Your task to perform on an android device: Go to network settings Image 0: 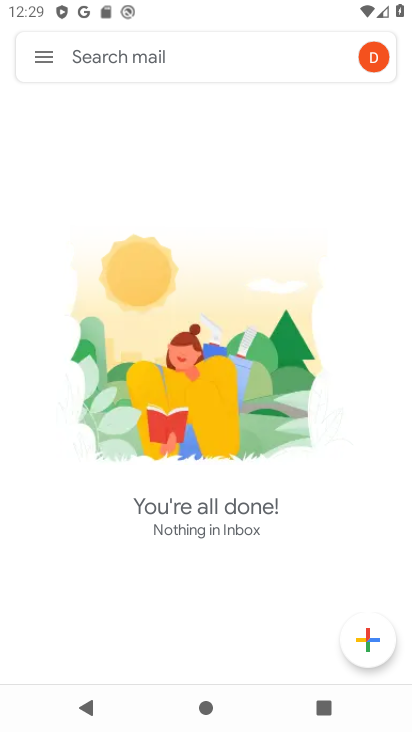
Step 0: press home button
Your task to perform on an android device: Go to network settings Image 1: 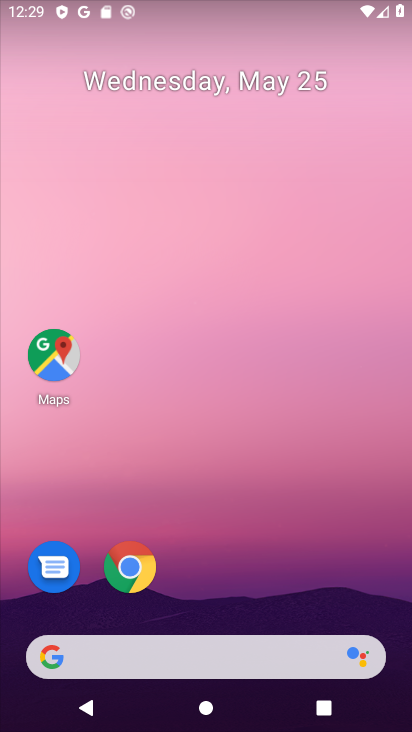
Step 1: drag from (196, 583) to (219, 93)
Your task to perform on an android device: Go to network settings Image 2: 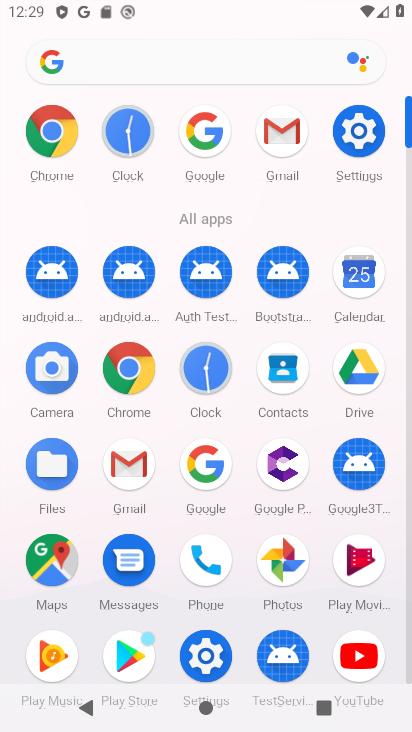
Step 2: click (359, 134)
Your task to perform on an android device: Go to network settings Image 3: 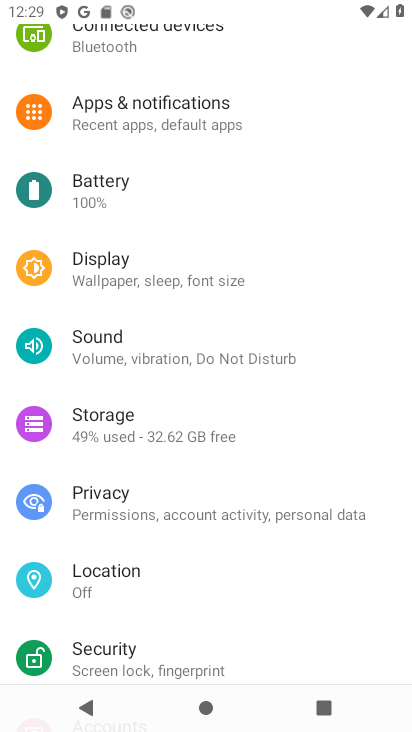
Step 3: drag from (173, 207) to (211, 321)
Your task to perform on an android device: Go to network settings Image 4: 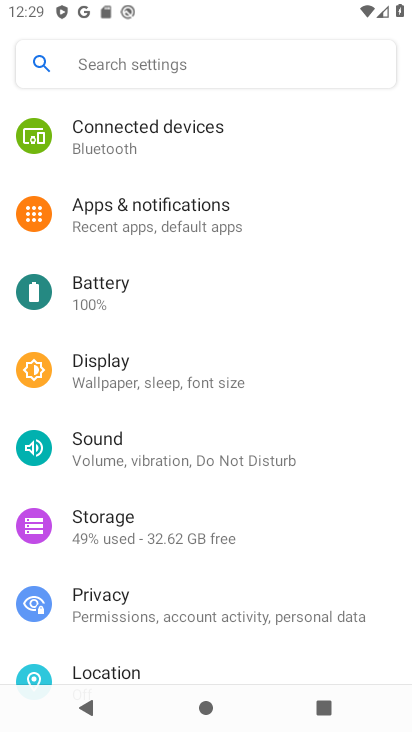
Step 4: drag from (176, 179) to (233, 310)
Your task to perform on an android device: Go to network settings Image 5: 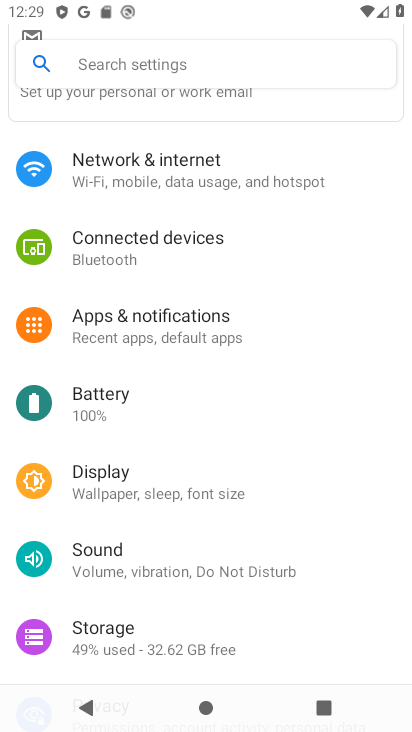
Step 5: click (179, 170)
Your task to perform on an android device: Go to network settings Image 6: 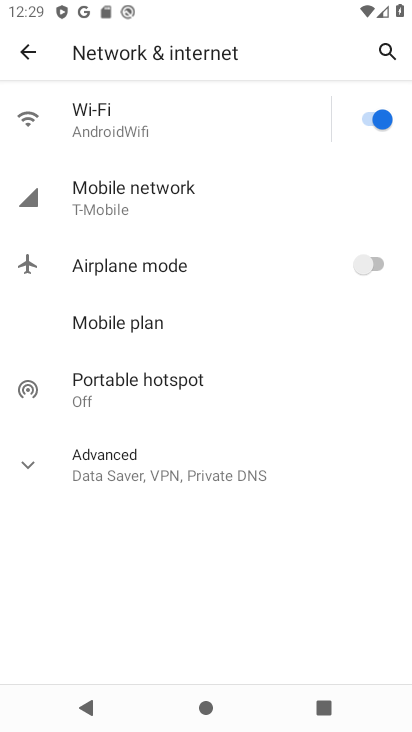
Step 6: click (122, 134)
Your task to perform on an android device: Go to network settings Image 7: 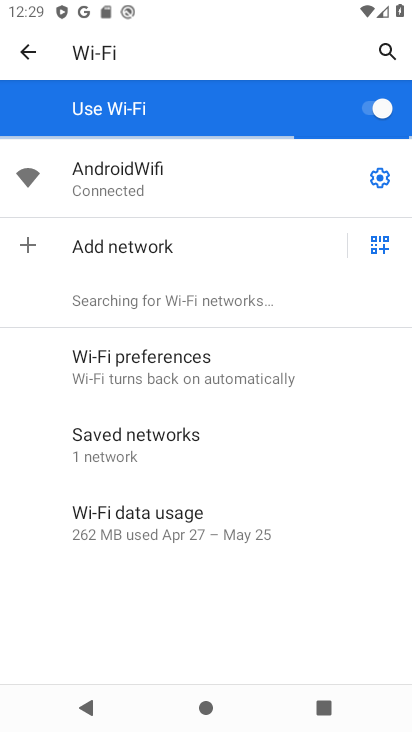
Step 7: click (123, 197)
Your task to perform on an android device: Go to network settings Image 8: 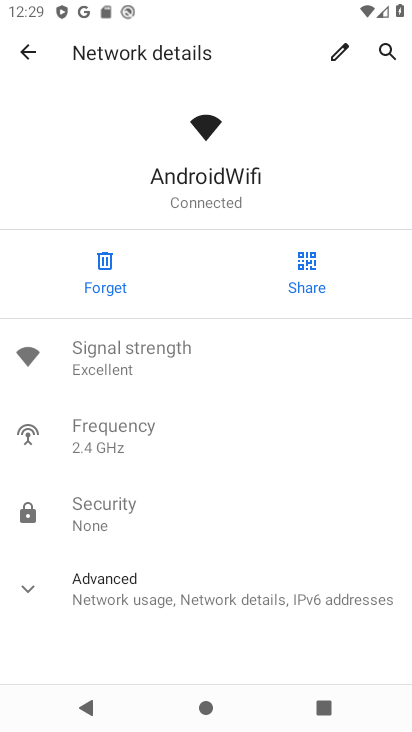
Step 8: task complete